Your task to perform on an android device: turn off smart reply in the gmail app Image 0: 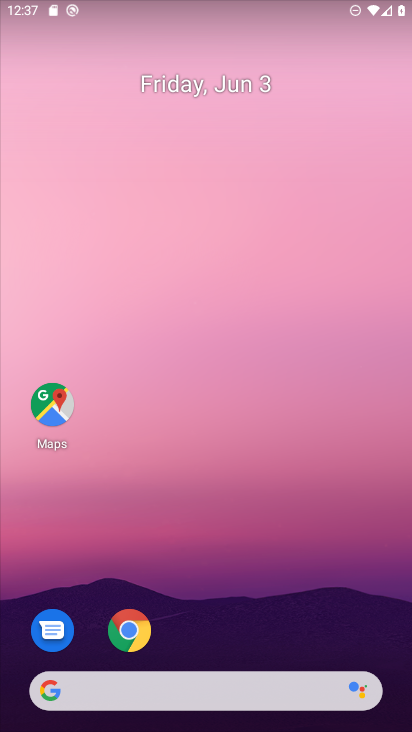
Step 0: drag from (222, 630) to (193, 254)
Your task to perform on an android device: turn off smart reply in the gmail app Image 1: 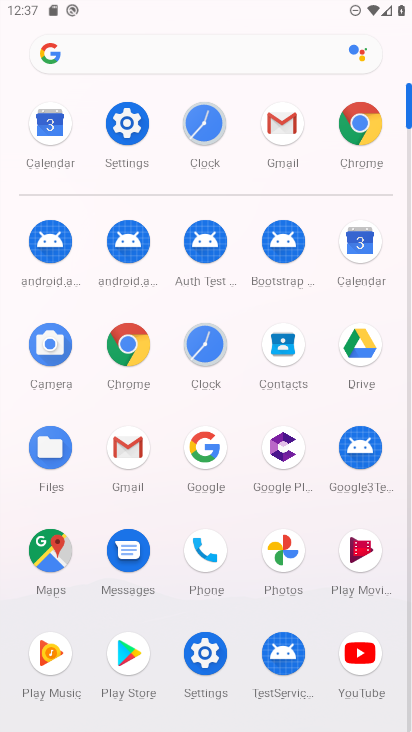
Step 1: click (287, 132)
Your task to perform on an android device: turn off smart reply in the gmail app Image 2: 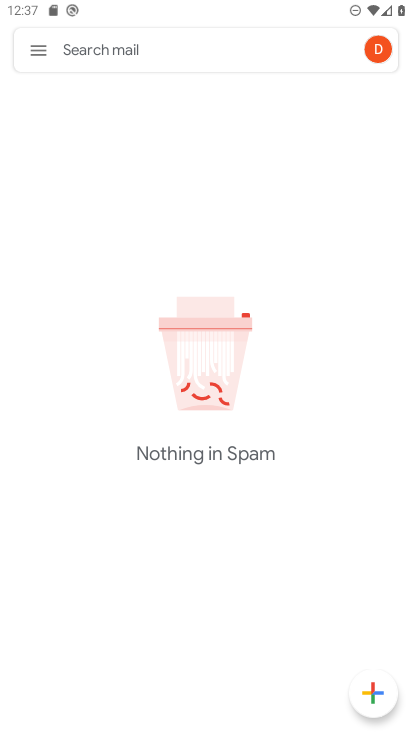
Step 2: click (35, 52)
Your task to perform on an android device: turn off smart reply in the gmail app Image 3: 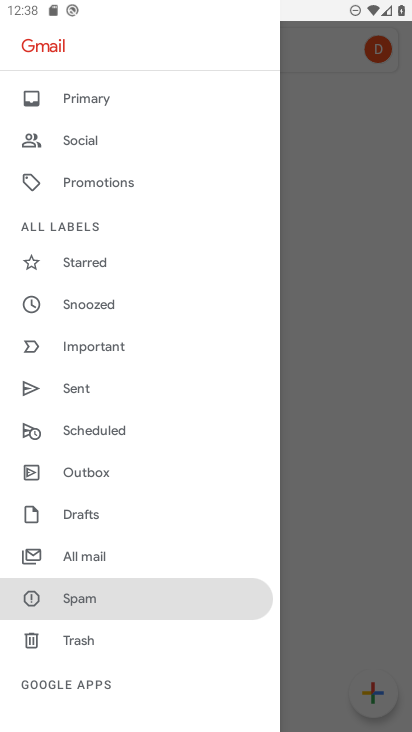
Step 3: drag from (147, 646) to (135, 364)
Your task to perform on an android device: turn off smart reply in the gmail app Image 4: 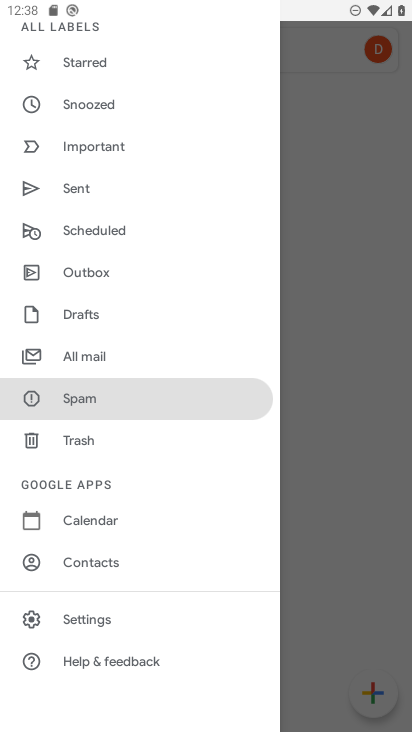
Step 4: click (120, 619)
Your task to perform on an android device: turn off smart reply in the gmail app Image 5: 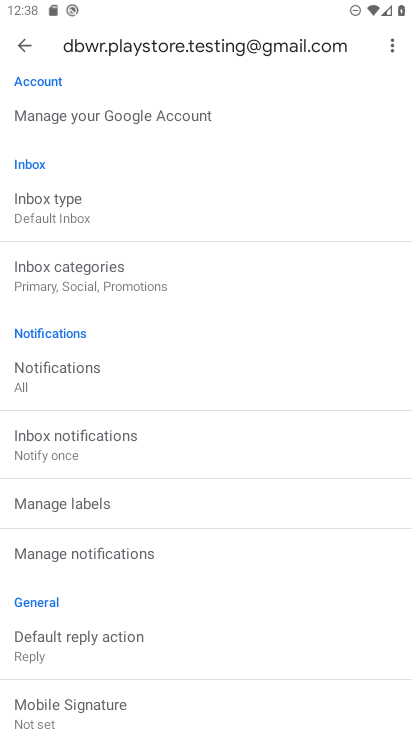
Step 5: drag from (178, 685) to (175, 243)
Your task to perform on an android device: turn off smart reply in the gmail app Image 6: 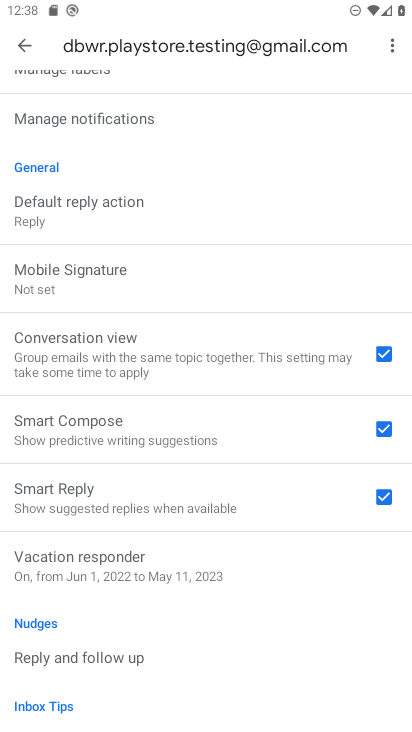
Step 6: drag from (194, 642) to (204, 402)
Your task to perform on an android device: turn off smart reply in the gmail app Image 7: 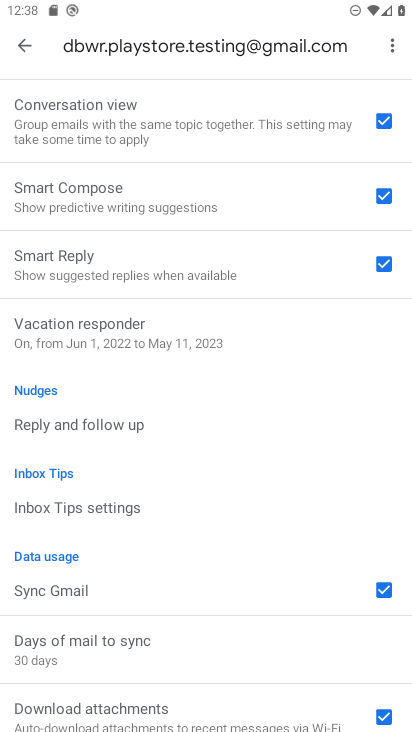
Step 7: click (387, 266)
Your task to perform on an android device: turn off smart reply in the gmail app Image 8: 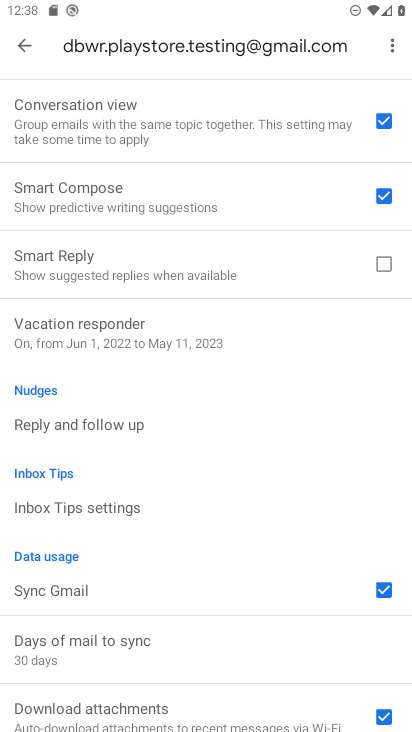
Step 8: task complete